Your task to perform on an android device: open app "Yahoo Mail" (install if not already installed) Image 0: 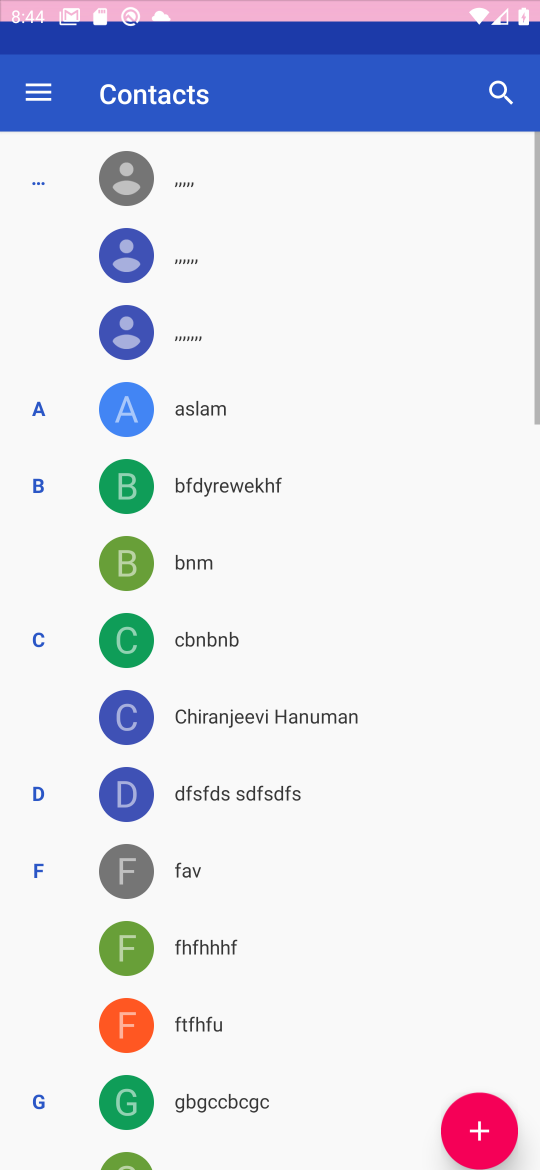
Step 0: press home button
Your task to perform on an android device: open app "Yahoo Mail" (install if not already installed) Image 1: 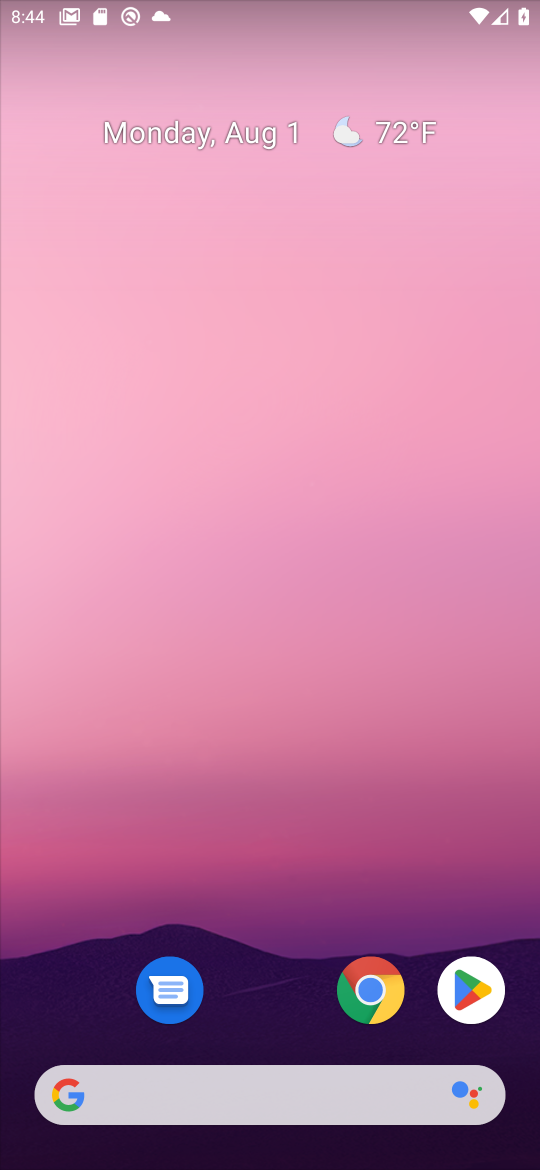
Step 1: click (464, 986)
Your task to perform on an android device: open app "Yahoo Mail" (install if not already installed) Image 2: 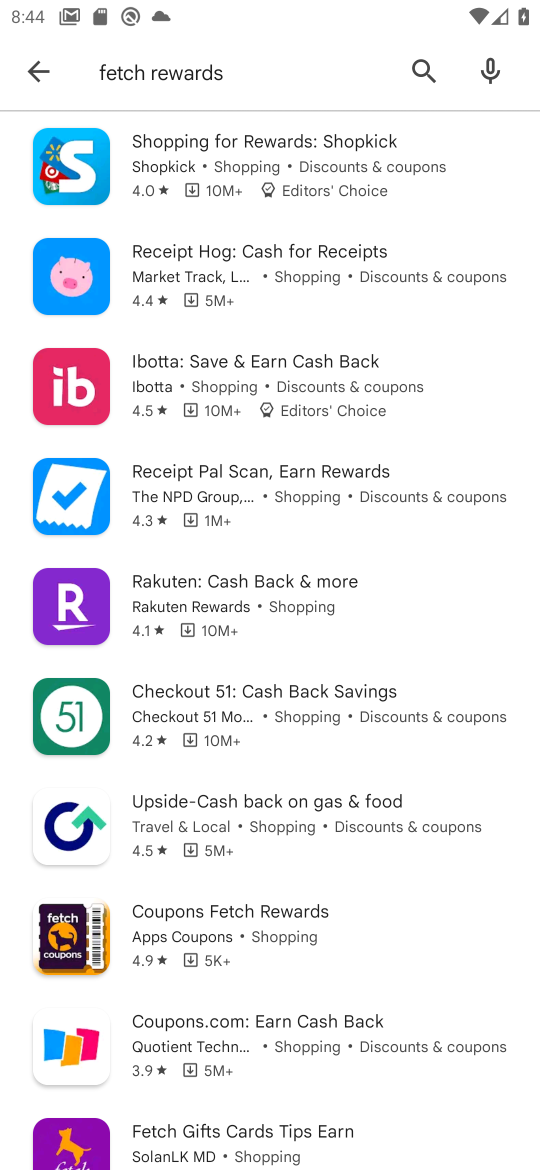
Step 2: click (415, 66)
Your task to perform on an android device: open app "Yahoo Mail" (install if not already installed) Image 3: 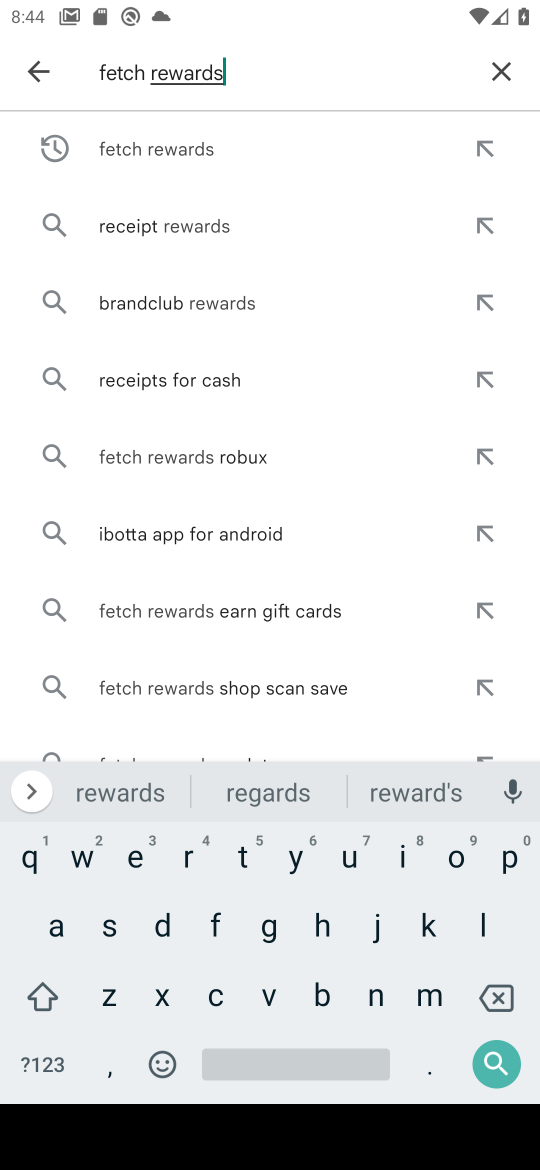
Step 3: click (500, 70)
Your task to perform on an android device: open app "Yahoo Mail" (install if not already installed) Image 4: 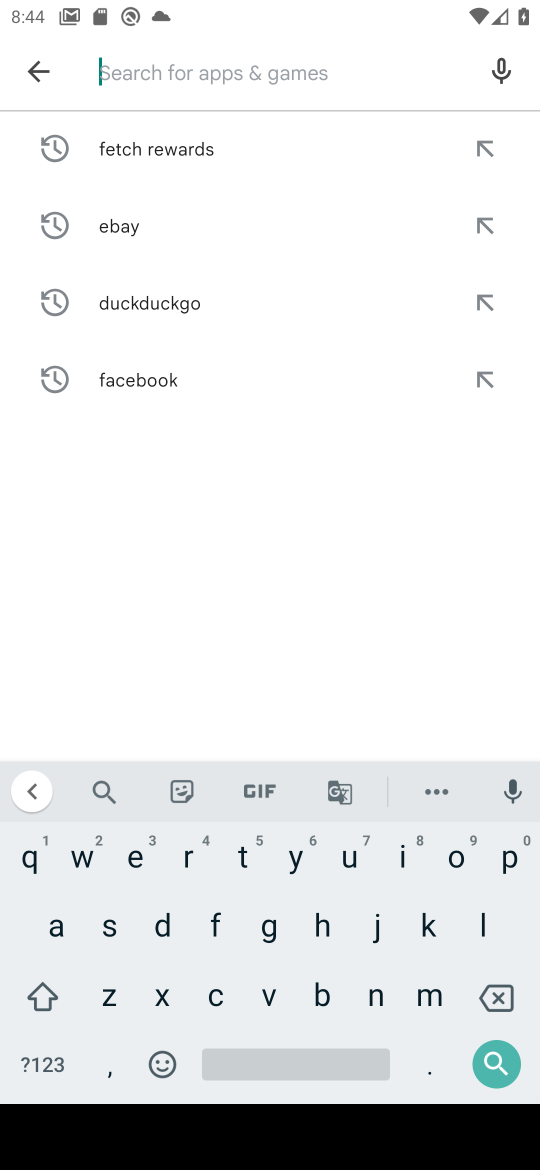
Step 4: click (295, 858)
Your task to perform on an android device: open app "Yahoo Mail" (install if not already installed) Image 5: 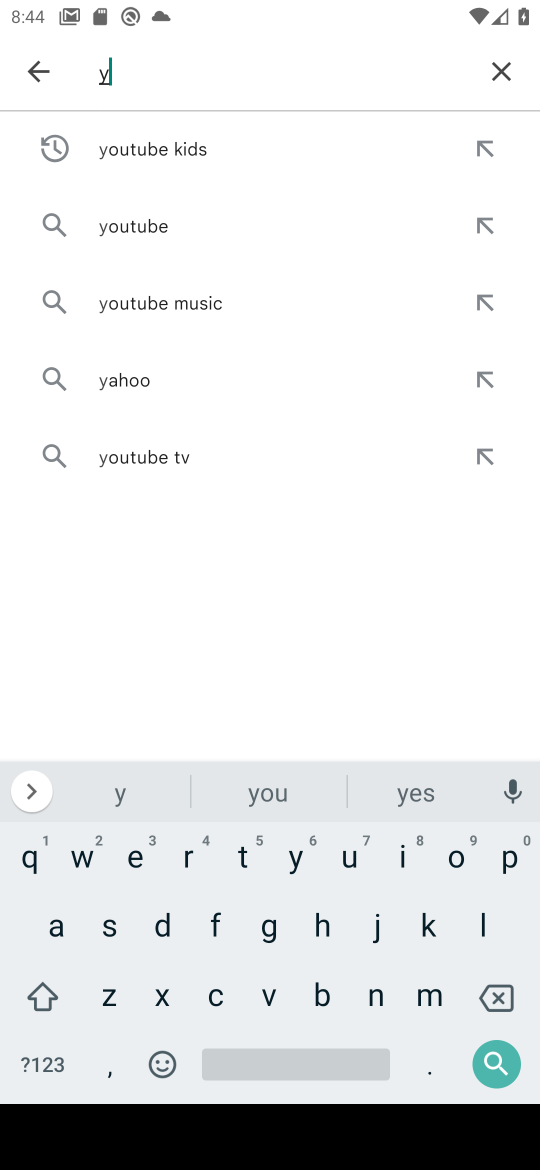
Step 5: click (50, 926)
Your task to perform on an android device: open app "Yahoo Mail" (install if not already installed) Image 6: 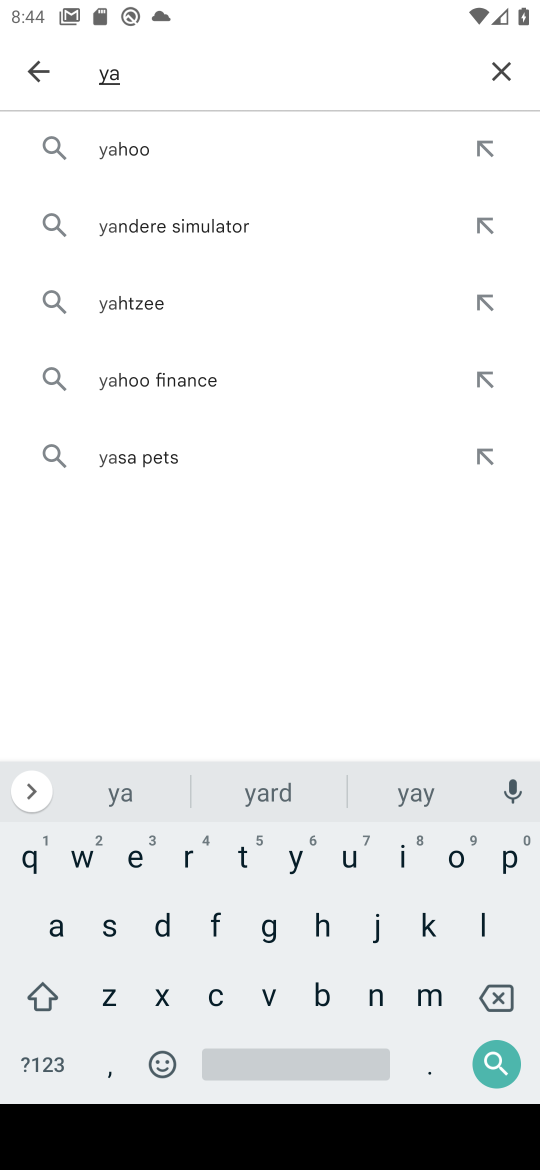
Step 6: click (312, 924)
Your task to perform on an android device: open app "Yahoo Mail" (install if not already installed) Image 7: 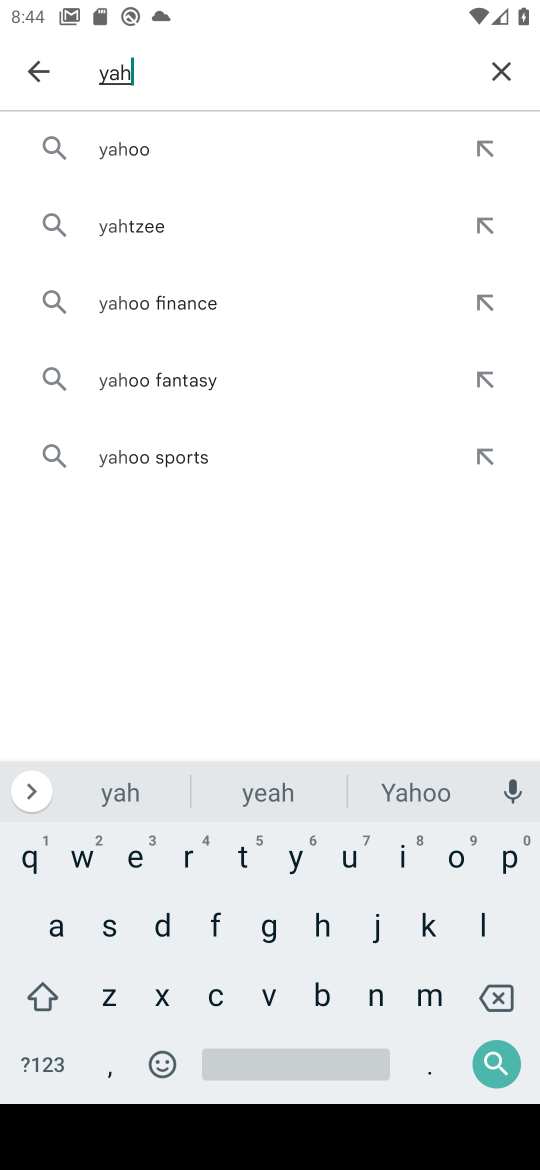
Step 7: click (150, 159)
Your task to perform on an android device: open app "Yahoo Mail" (install if not already installed) Image 8: 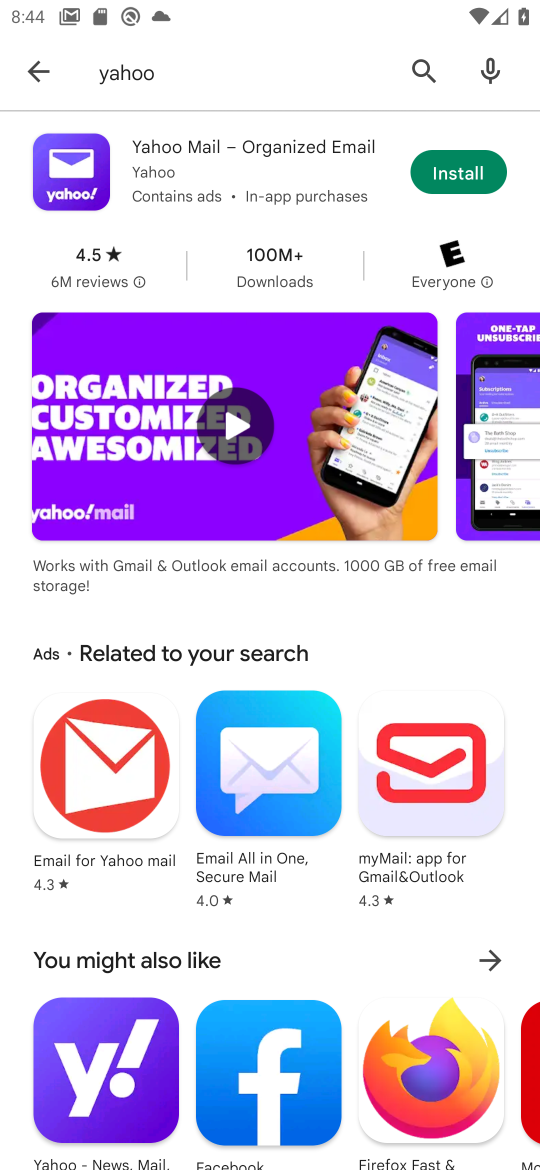
Step 8: click (460, 174)
Your task to perform on an android device: open app "Yahoo Mail" (install if not already installed) Image 9: 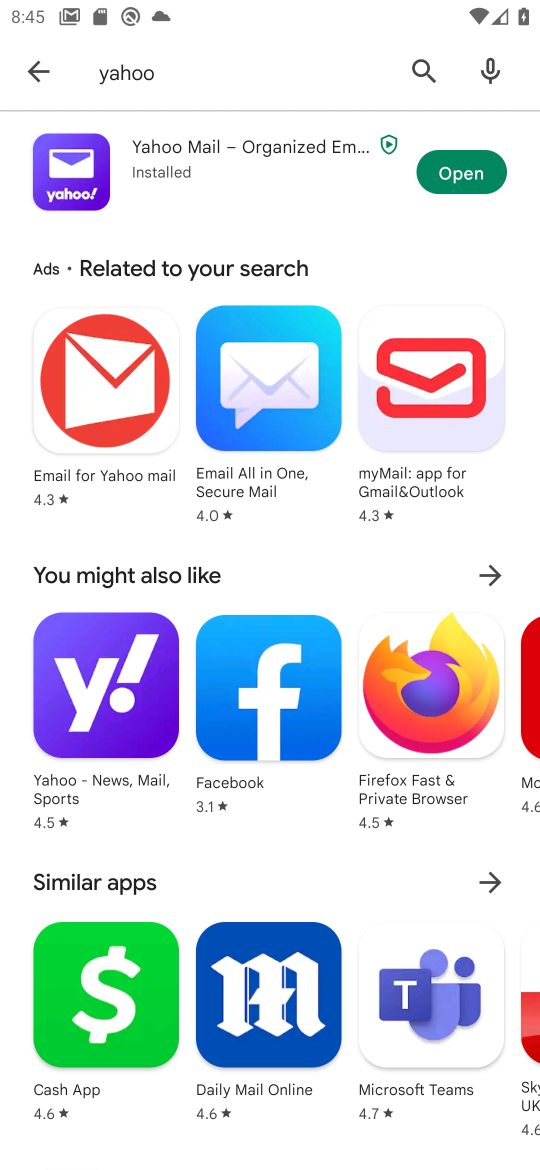
Step 9: click (443, 168)
Your task to perform on an android device: open app "Yahoo Mail" (install if not already installed) Image 10: 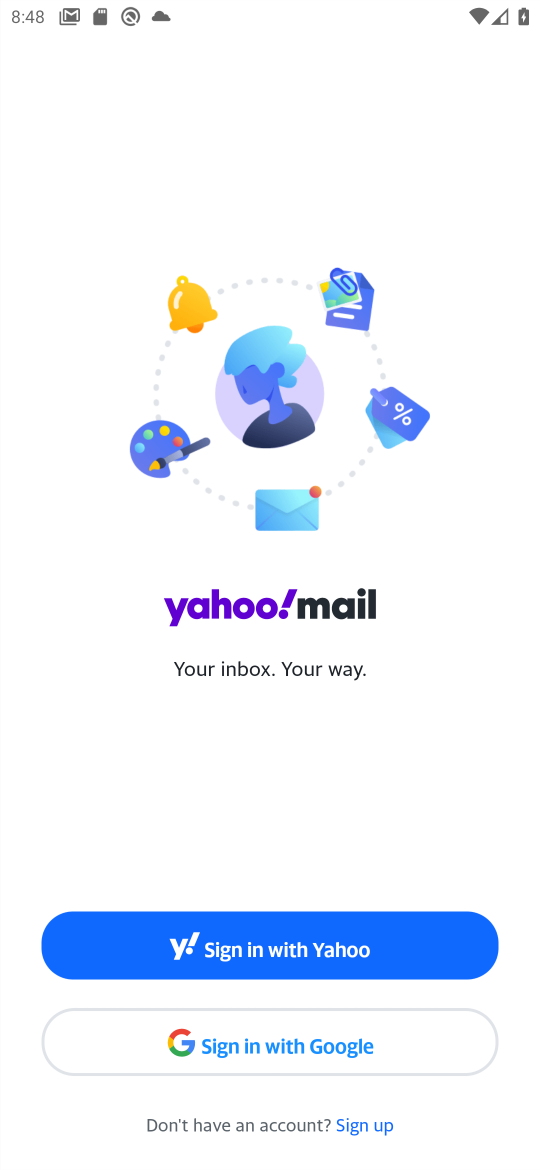
Step 10: task complete